Your task to perform on an android device: Open settings Image 0: 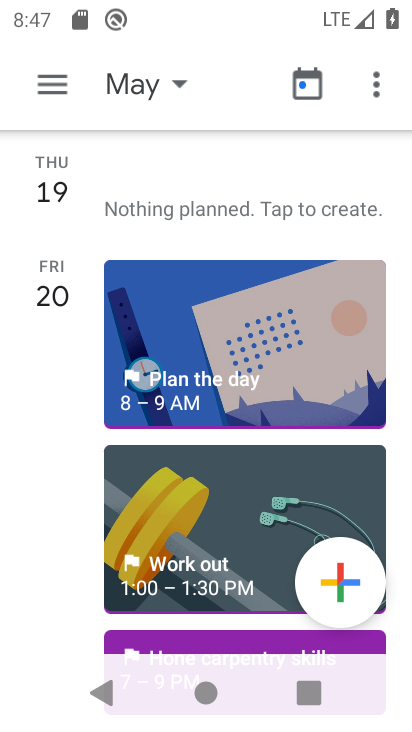
Step 0: press home button
Your task to perform on an android device: Open settings Image 1: 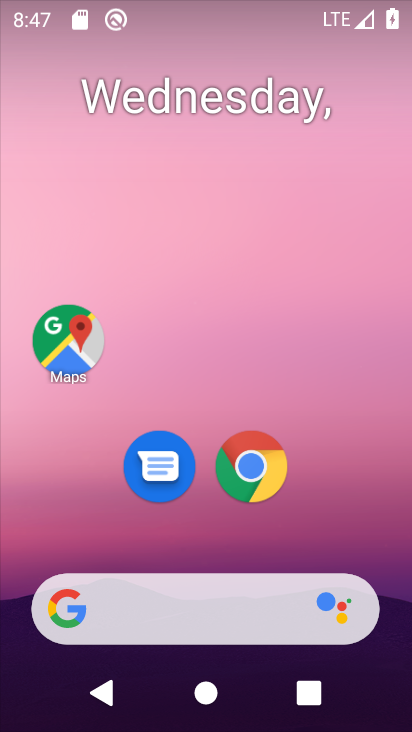
Step 1: drag from (221, 728) to (161, 174)
Your task to perform on an android device: Open settings Image 2: 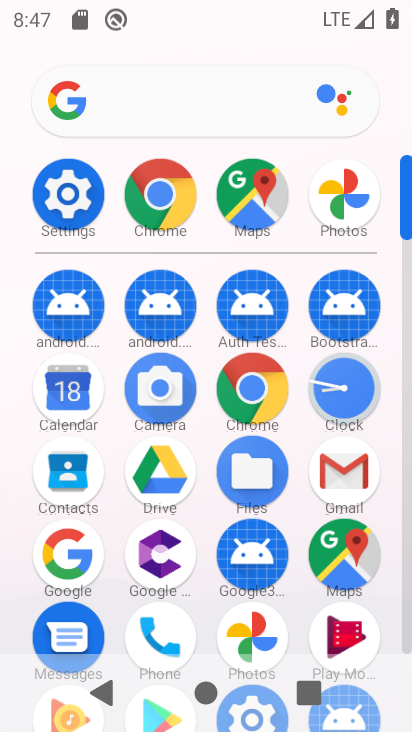
Step 2: click (63, 195)
Your task to perform on an android device: Open settings Image 3: 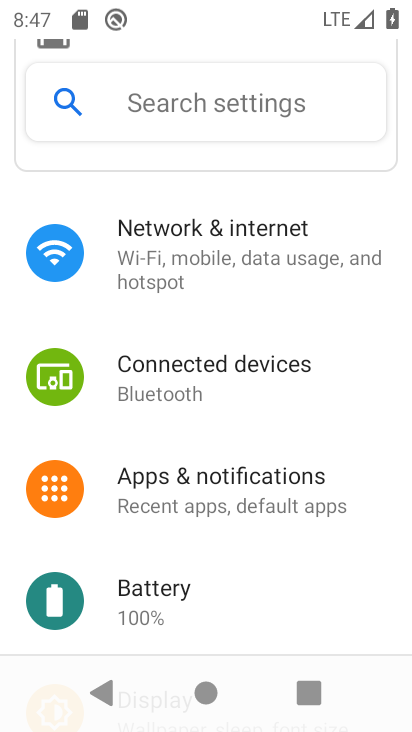
Step 3: task complete